Your task to perform on an android device: delete the emails in spam in the gmail app Image 0: 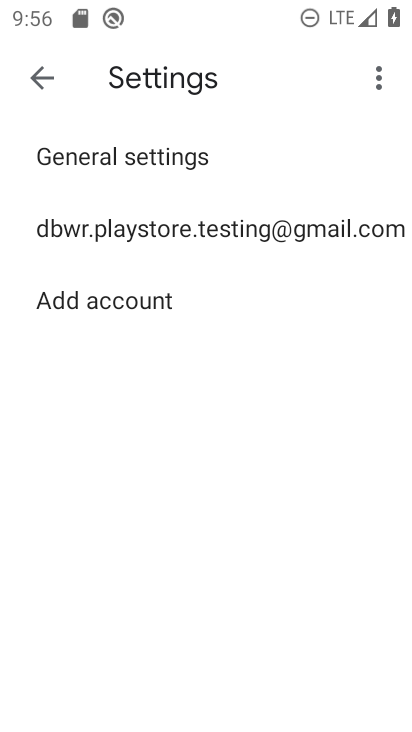
Step 0: click (45, 77)
Your task to perform on an android device: delete the emails in spam in the gmail app Image 1: 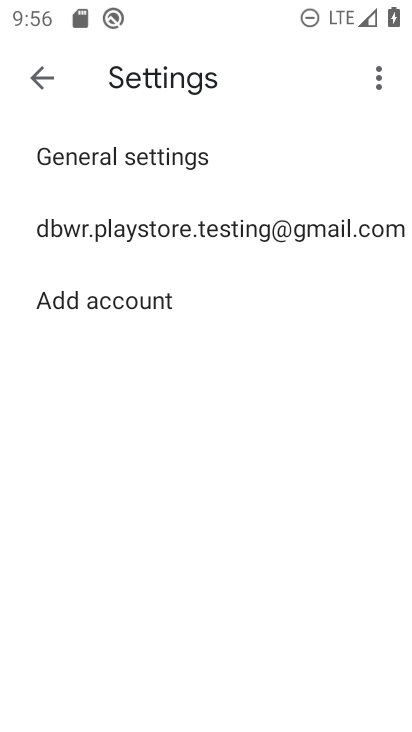
Step 1: click (36, 74)
Your task to perform on an android device: delete the emails in spam in the gmail app Image 2: 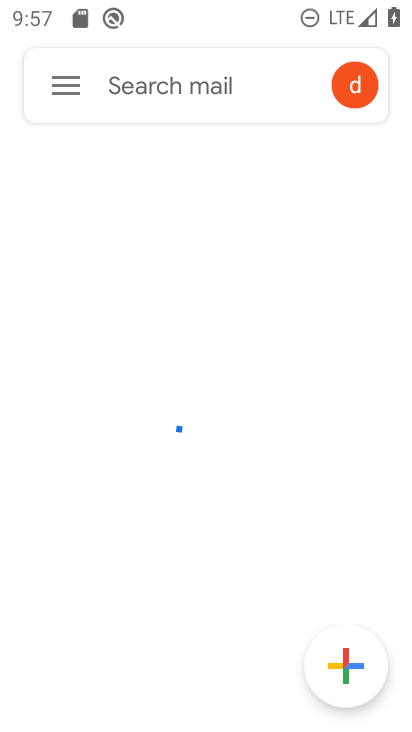
Step 2: task complete